Your task to perform on an android device: What is the recent news? Image 0: 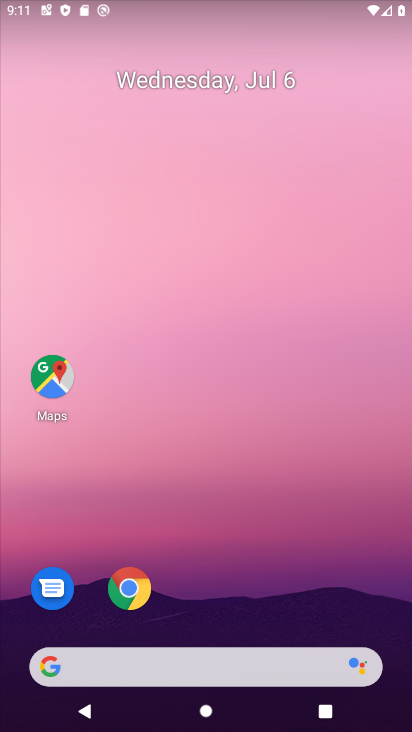
Step 0: drag from (160, 661) to (332, 84)
Your task to perform on an android device: What is the recent news? Image 1: 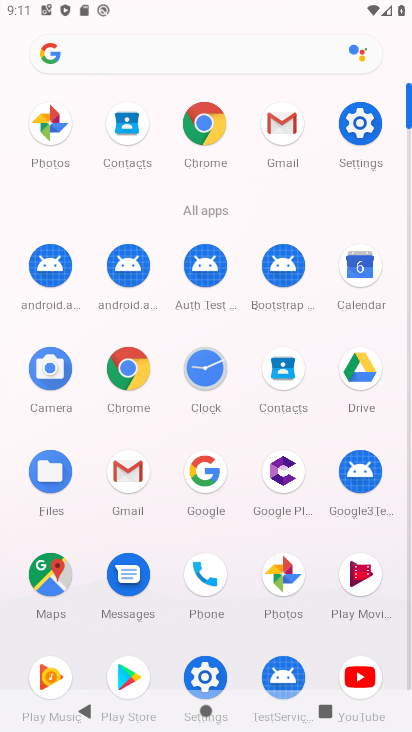
Step 1: click (213, 477)
Your task to perform on an android device: What is the recent news? Image 2: 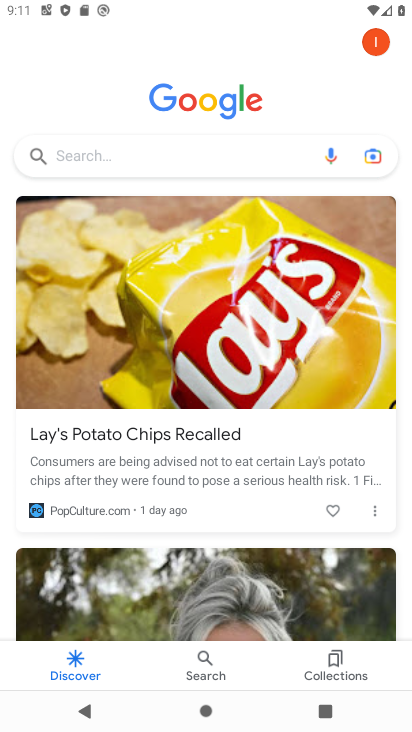
Step 2: task complete